Your task to perform on an android device: Go to sound settings Image 0: 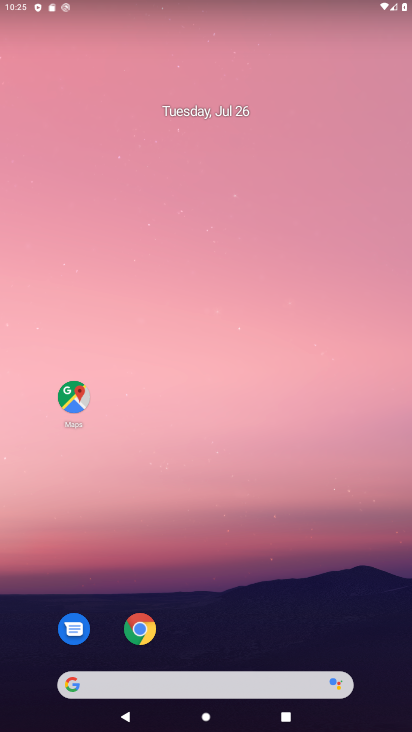
Step 0: drag from (281, 625) to (270, 257)
Your task to perform on an android device: Go to sound settings Image 1: 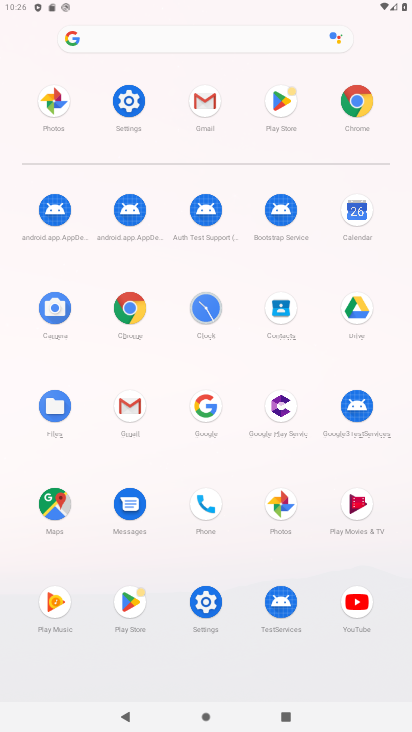
Step 1: click (137, 127)
Your task to perform on an android device: Go to sound settings Image 2: 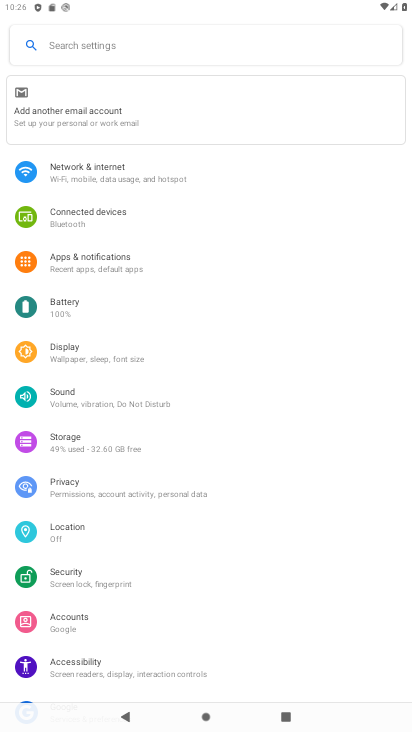
Step 2: click (99, 399)
Your task to perform on an android device: Go to sound settings Image 3: 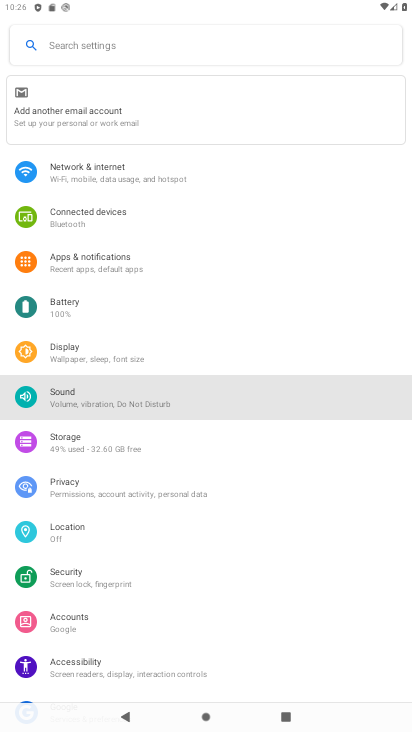
Step 3: task complete